Your task to perform on an android device: Open settings Image 0: 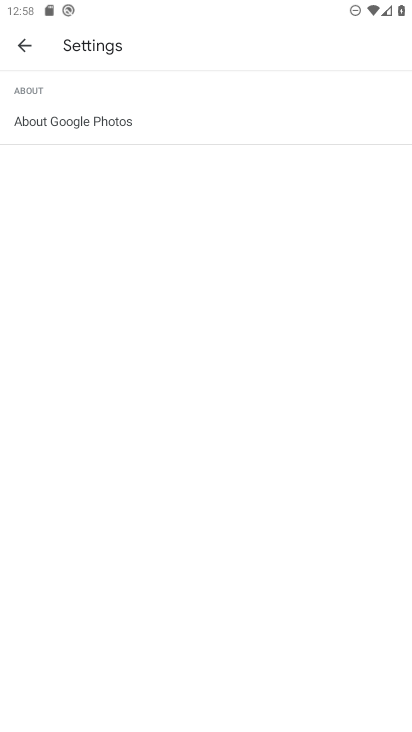
Step 0: press home button
Your task to perform on an android device: Open settings Image 1: 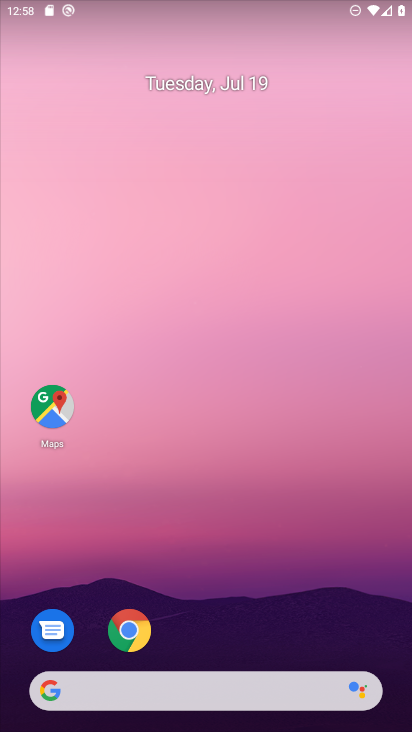
Step 1: drag from (148, 691) to (266, 106)
Your task to perform on an android device: Open settings Image 2: 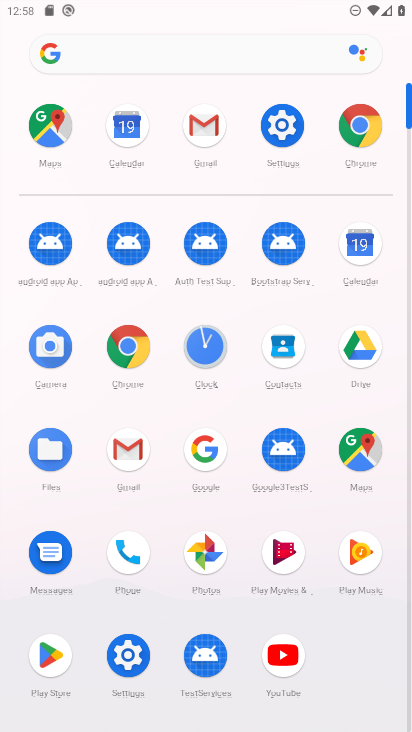
Step 2: click (279, 128)
Your task to perform on an android device: Open settings Image 3: 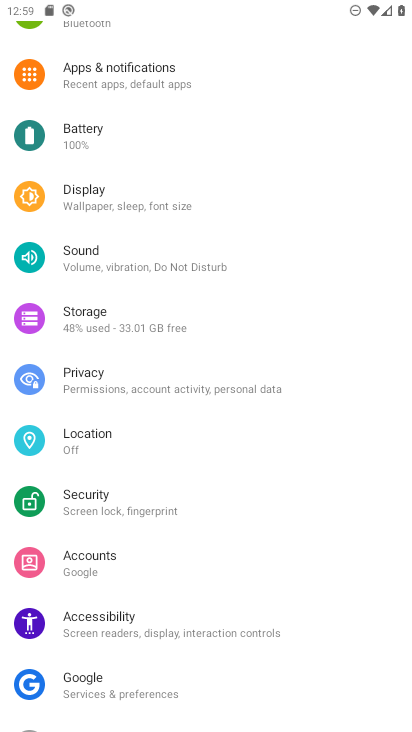
Step 3: task complete